Your task to perform on an android device: Go to Android settings Image 0: 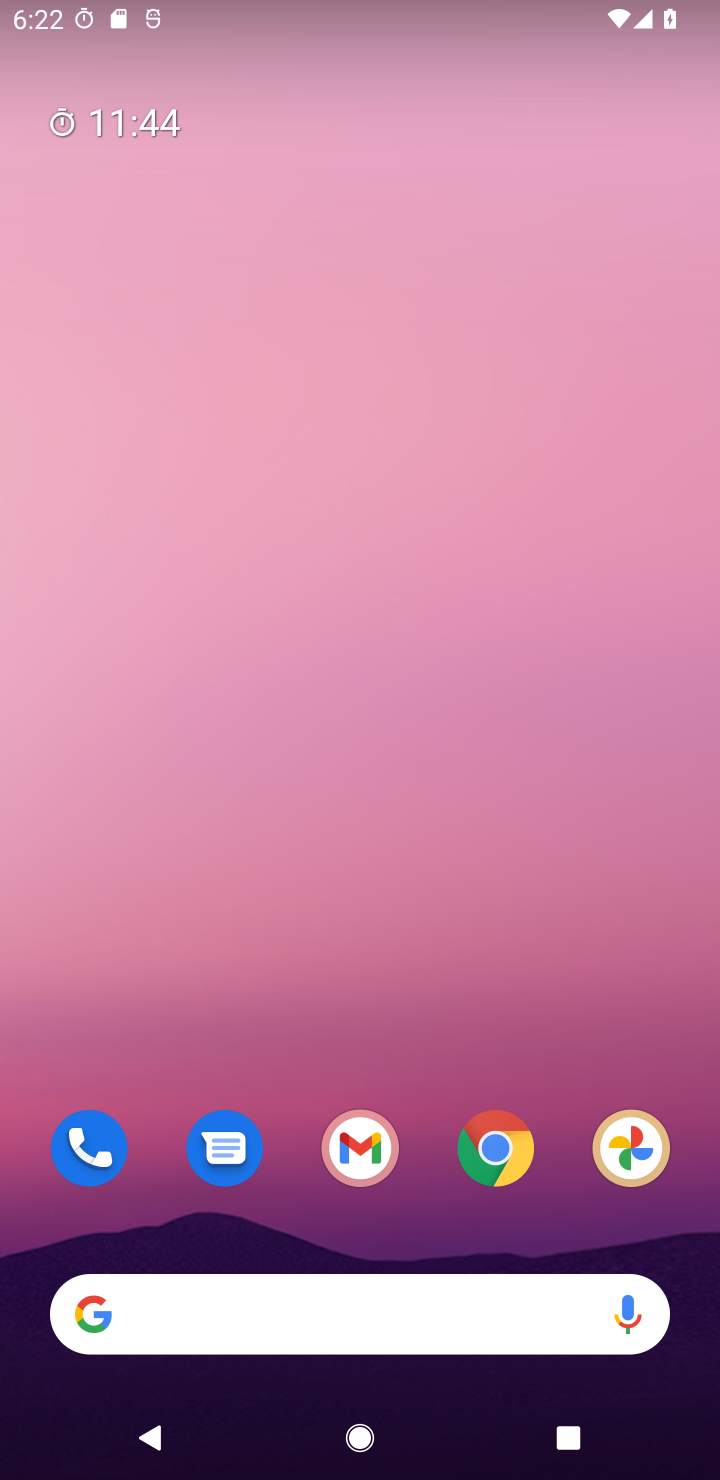
Step 0: drag from (298, 1171) to (499, 135)
Your task to perform on an android device: Go to Android settings Image 1: 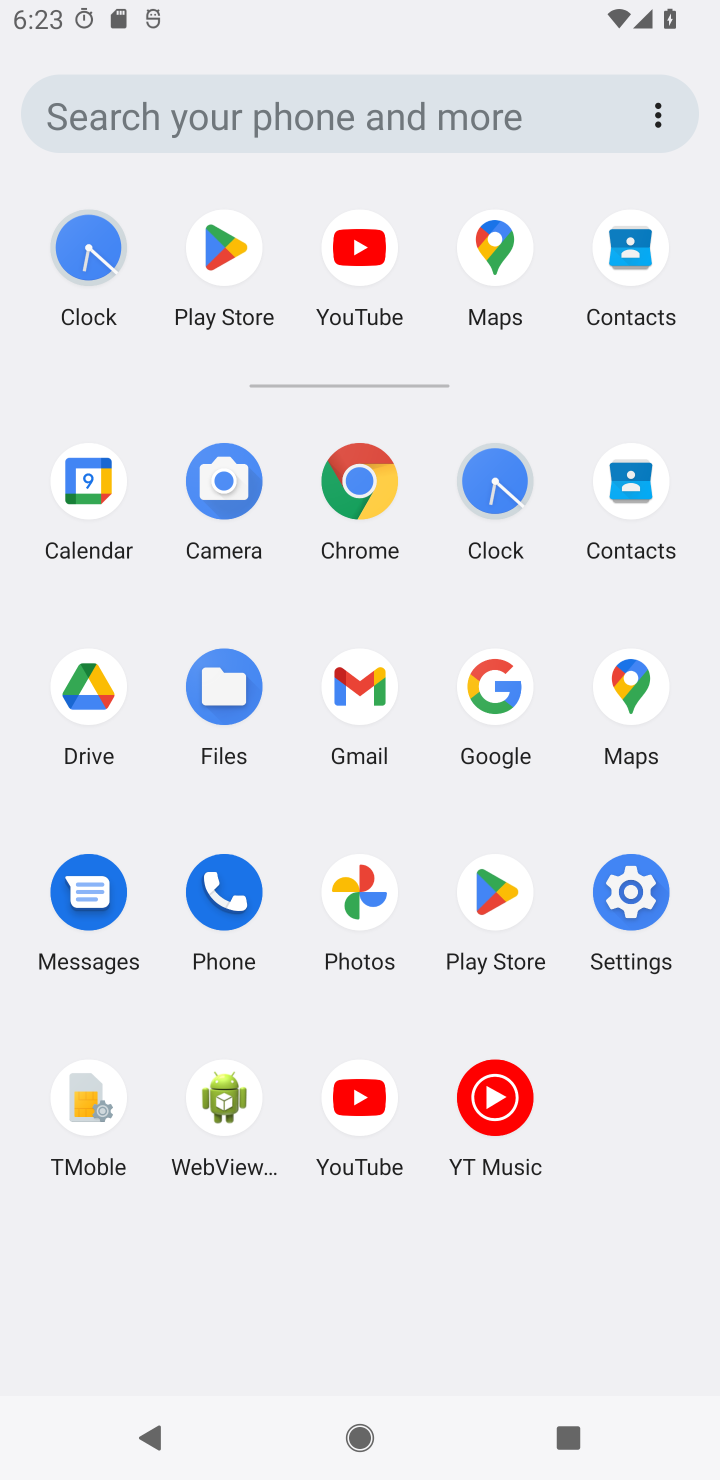
Step 1: click (630, 908)
Your task to perform on an android device: Go to Android settings Image 2: 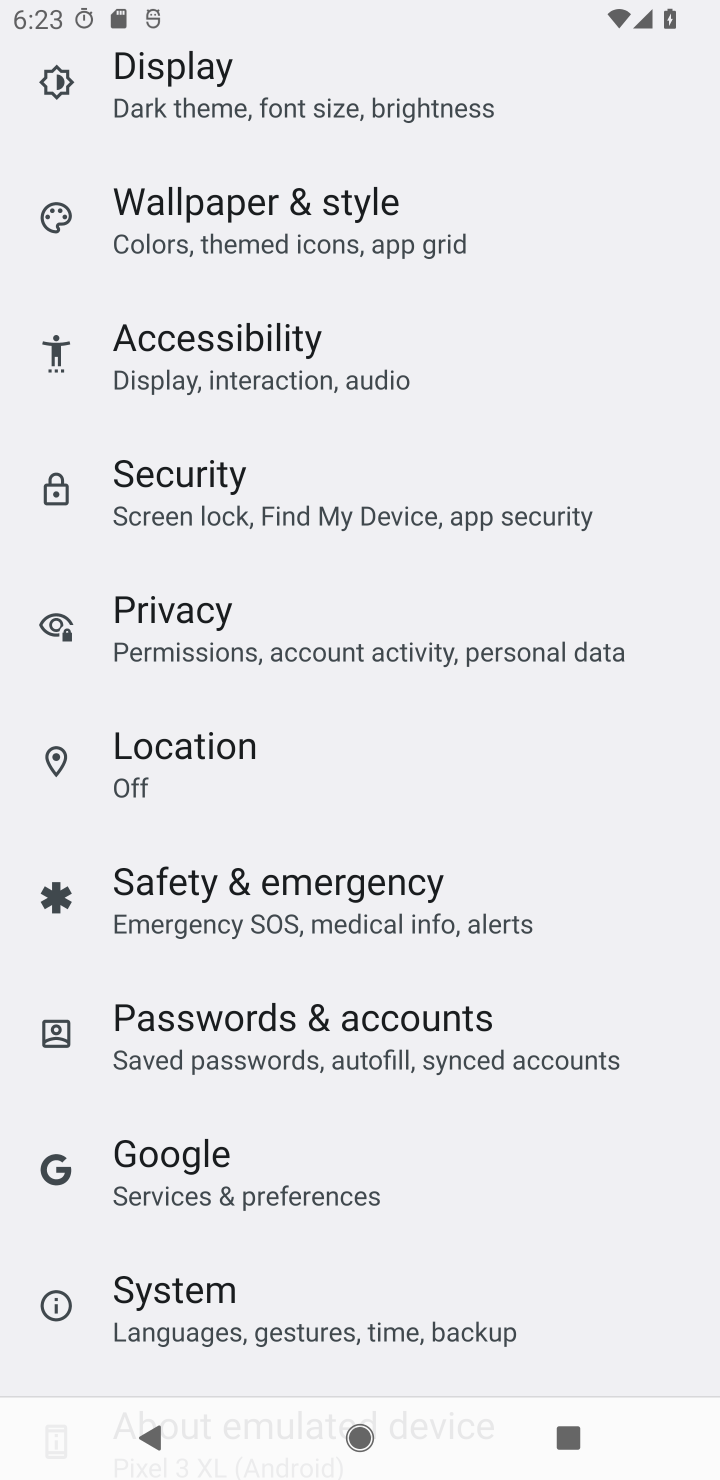
Step 2: drag from (296, 1227) to (424, 589)
Your task to perform on an android device: Go to Android settings Image 3: 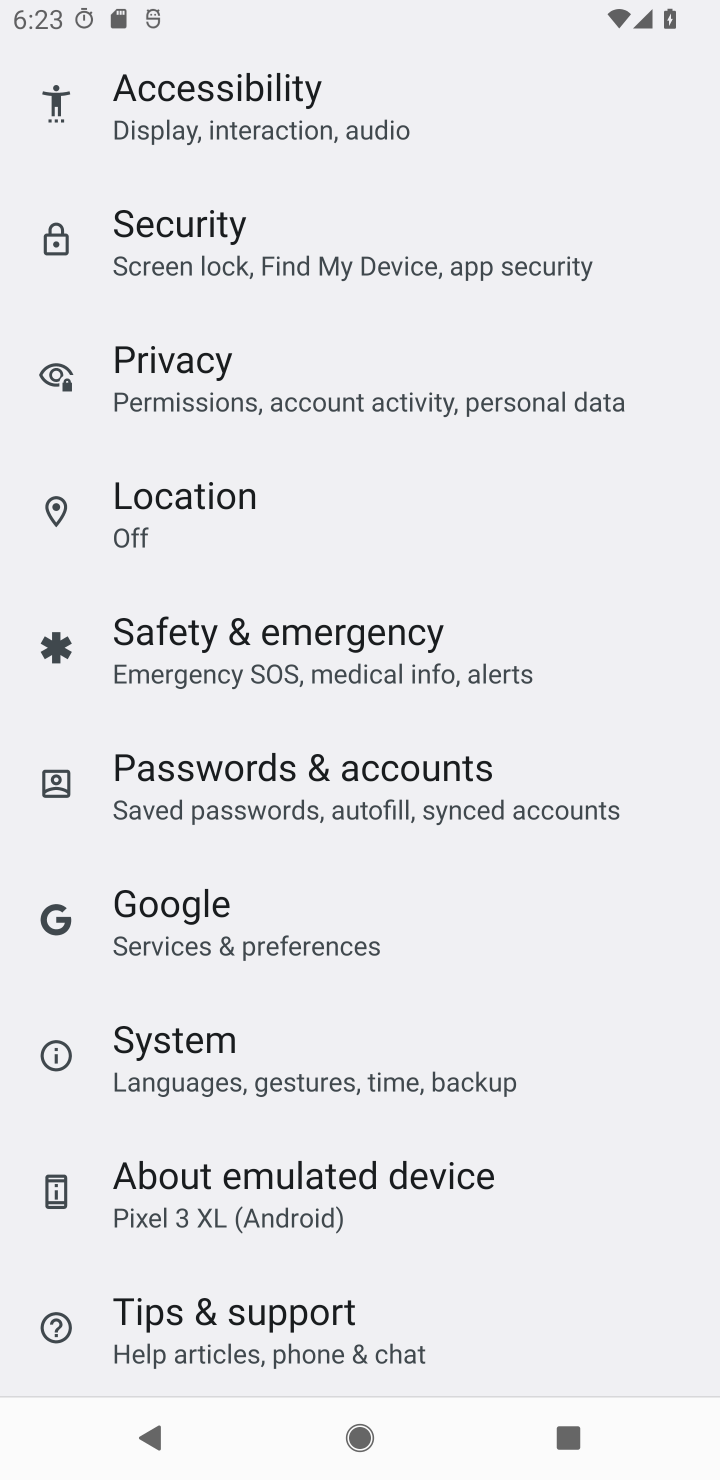
Step 3: drag from (288, 549) to (335, 114)
Your task to perform on an android device: Go to Android settings Image 4: 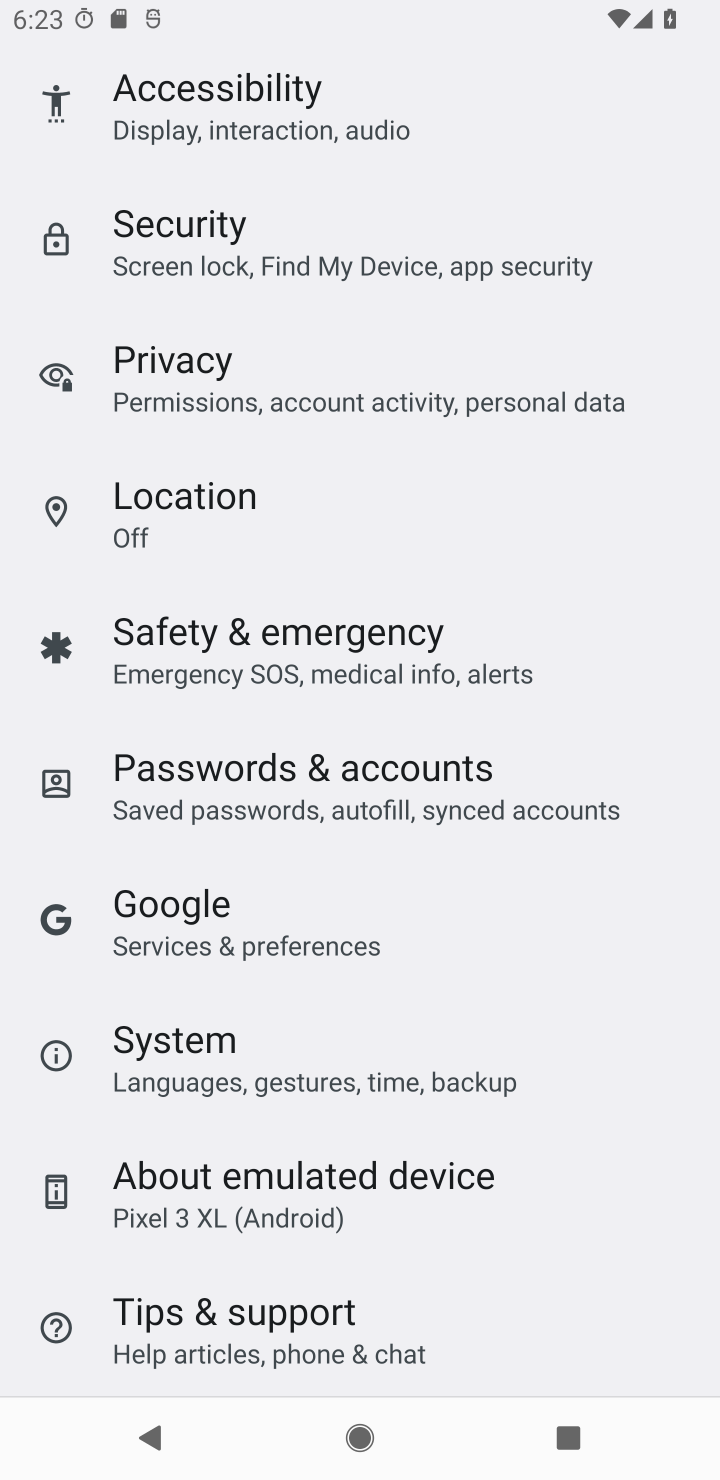
Step 4: click (265, 1207)
Your task to perform on an android device: Go to Android settings Image 5: 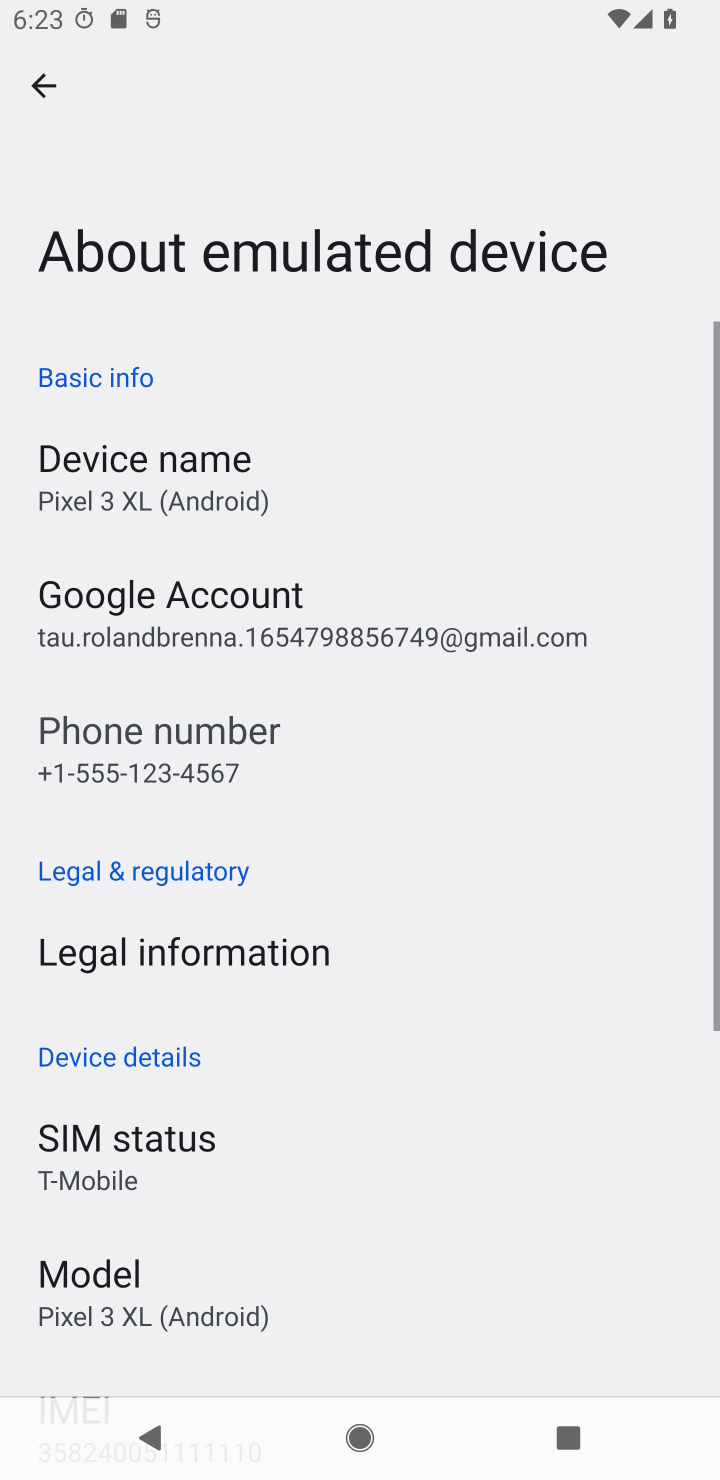
Step 5: drag from (245, 1213) to (242, 570)
Your task to perform on an android device: Go to Android settings Image 6: 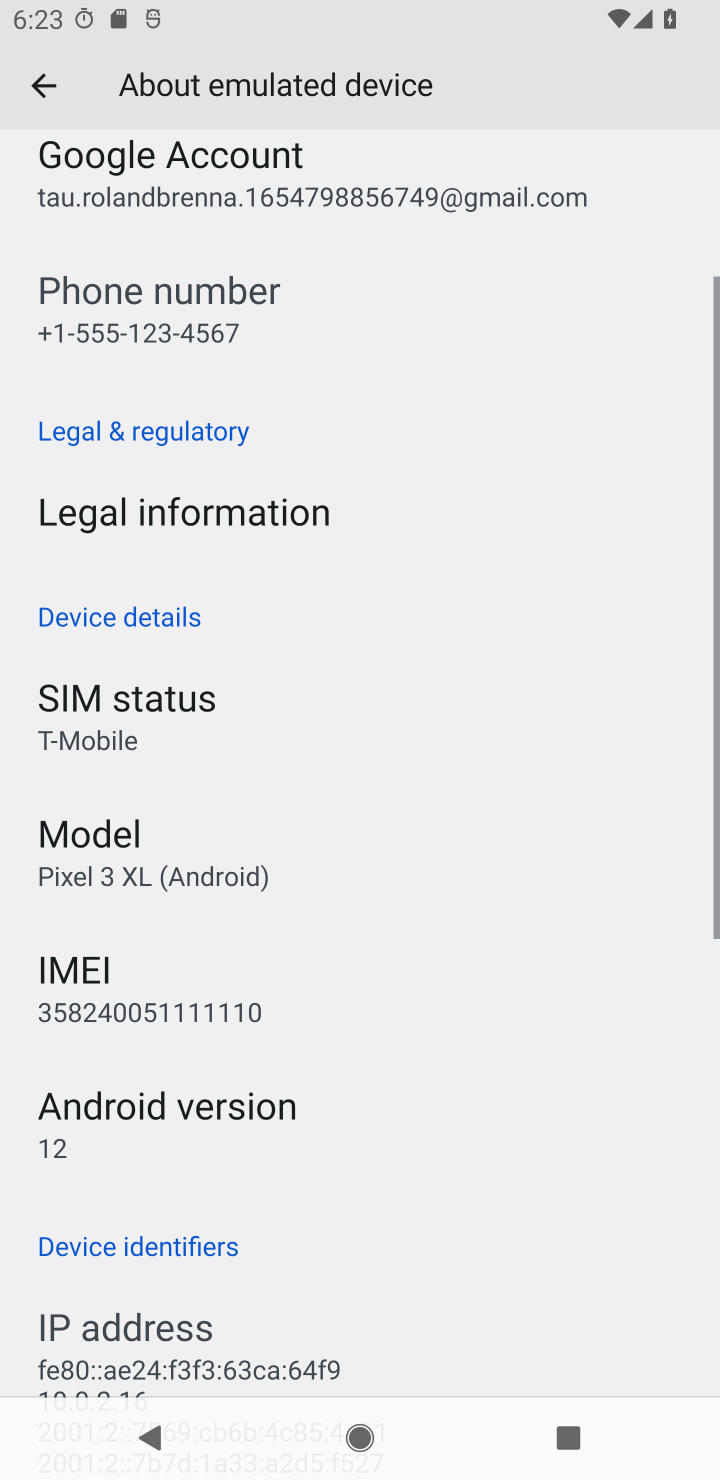
Step 6: click (223, 1133)
Your task to perform on an android device: Go to Android settings Image 7: 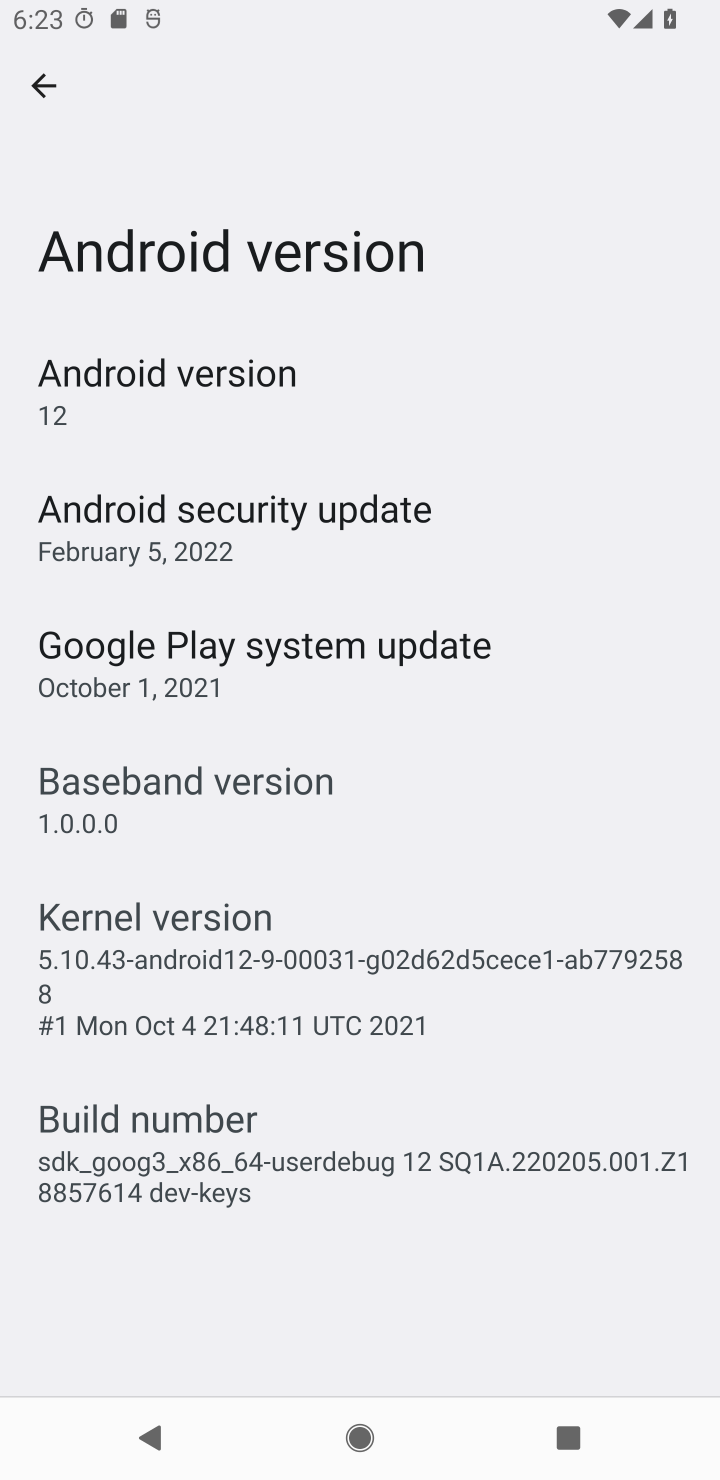
Step 7: task complete